Your task to perform on an android device: change timer sound Image 0: 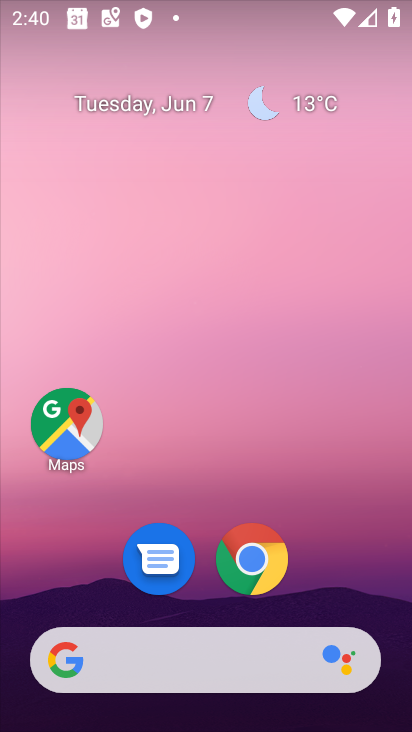
Step 0: drag from (343, 579) to (239, 0)
Your task to perform on an android device: change timer sound Image 1: 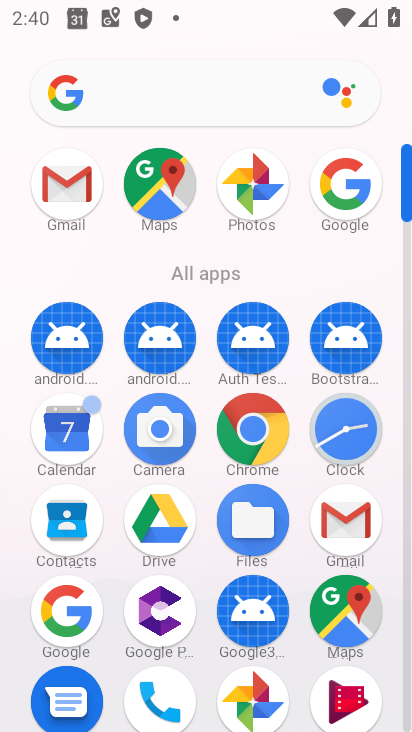
Step 1: drag from (302, 307) to (305, 99)
Your task to perform on an android device: change timer sound Image 2: 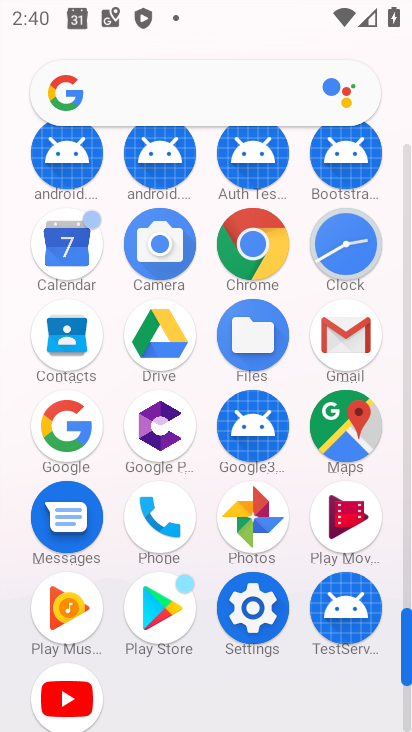
Step 2: click (348, 241)
Your task to perform on an android device: change timer sound Image 3: 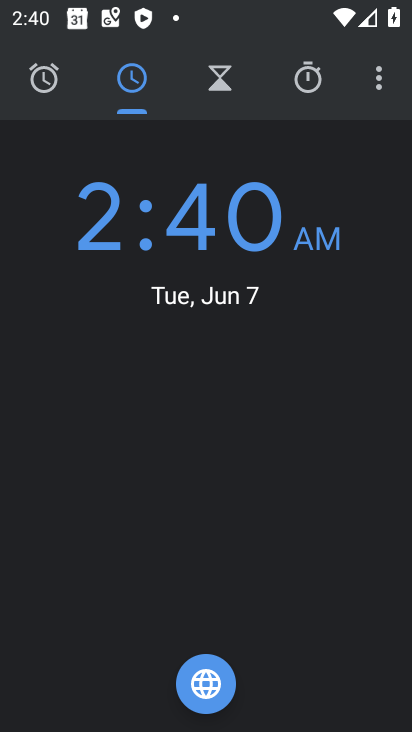
Step 3: click (377, 78)
Your task to perform on an android device: change timer sound Image 4: 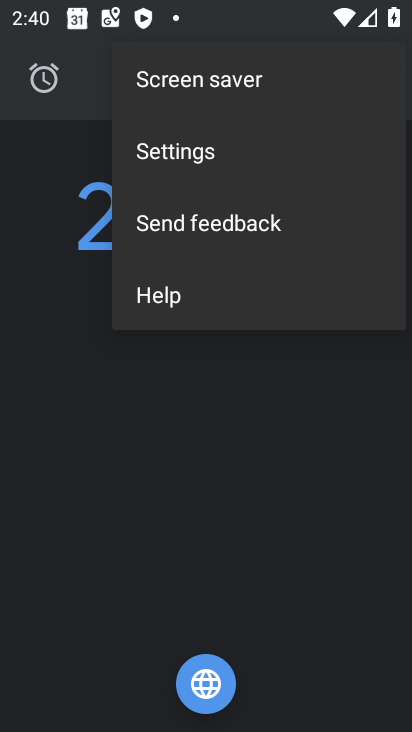
Step 4: click (164, 161)
Your task to perform on an android device: change timer sound Image 5: 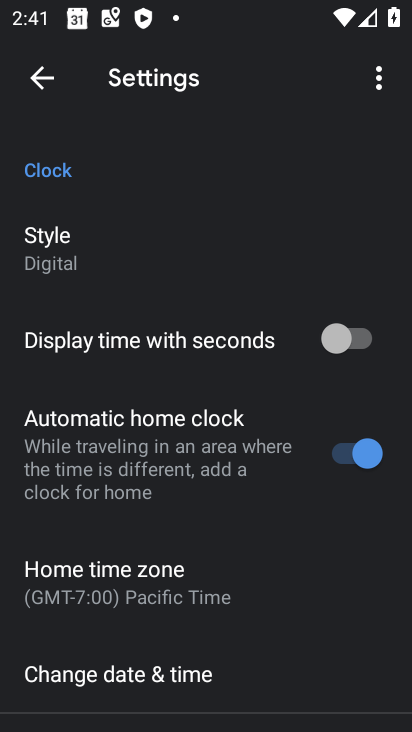
Step 5: drag from (210, 372) to (219, 157)
Your task to perform on an android device: change timer sound Image 6: 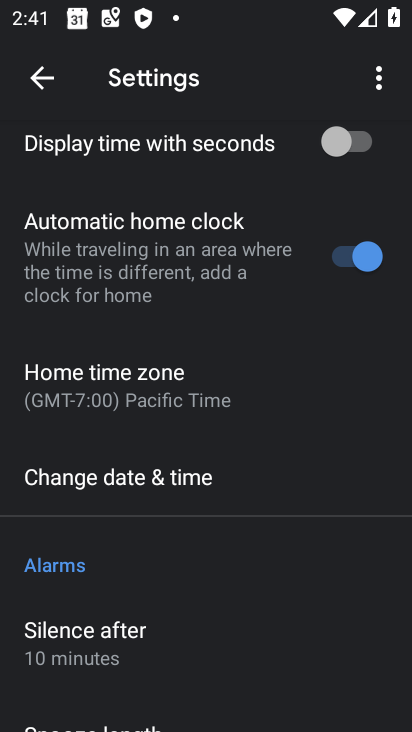
Step 6: drag from (140, 432) to (229, 264)
Your task to perform on an android device: change timer sound Image 7: 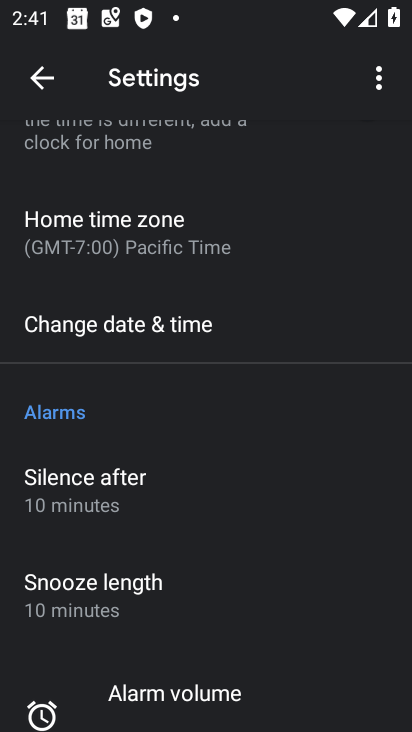
Step 7: drag from (109, 530) to (248, 342)
Your task to perform on an android device: change timer sound Image 8: 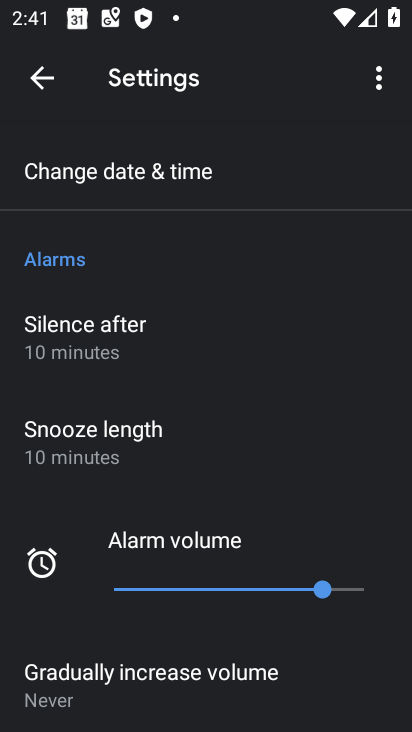
Step 8: drag from (79, 618) to (192, 372)
Your task to perform on an android device: change timer sound Image 9: 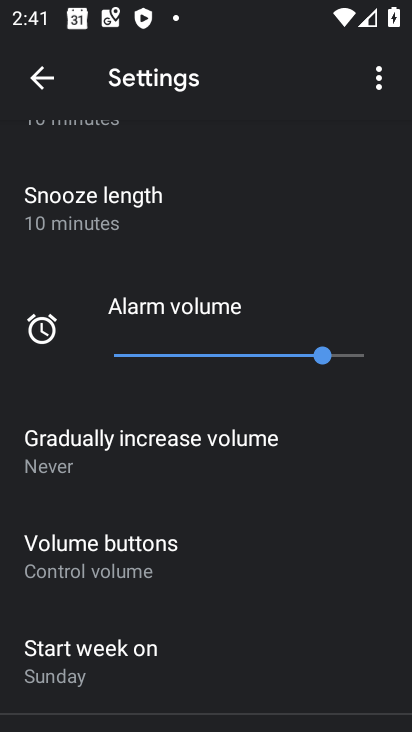
Step 9: drag from (87, 600) to (212, 418)
Your task to perform on an android device: change timer sound Image 10: 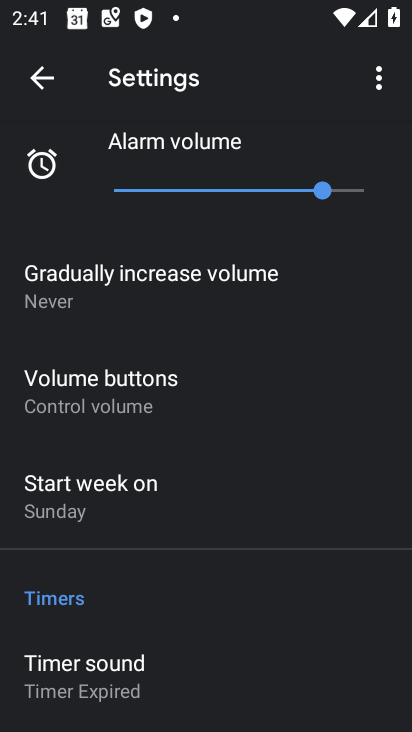
Step 10: click (114, 674)
Your task to perform on an android device: change timer sound Image 11: 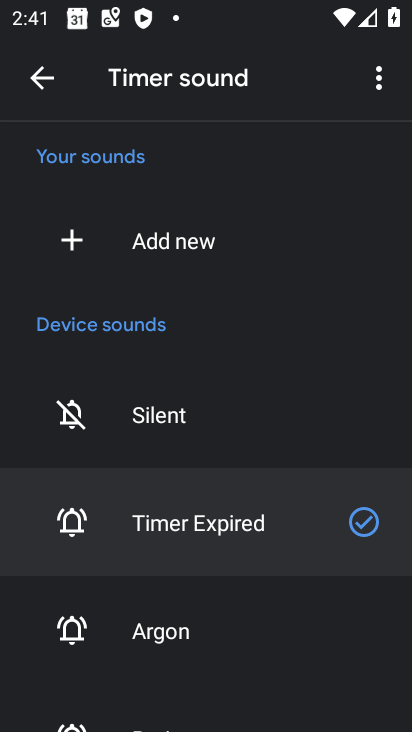
Step 11: drag from (166, 638) to (256, 474)
Your task to perform on an android device: change timer sound Image 12: 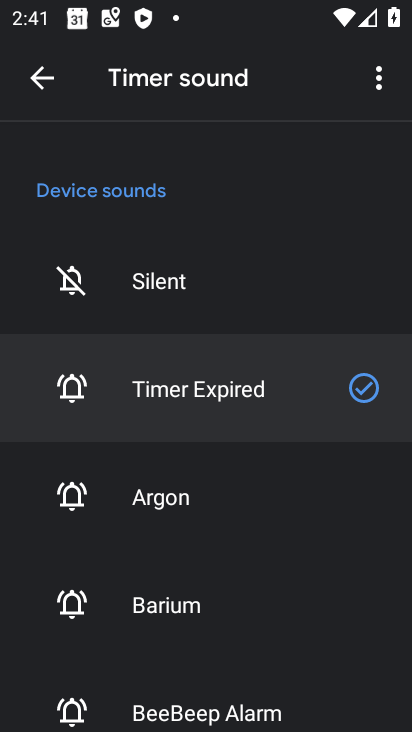
Step 12: drag from (195, 597) to (250, 469)
Your task to perform on an android device: change timer sound Image 13: 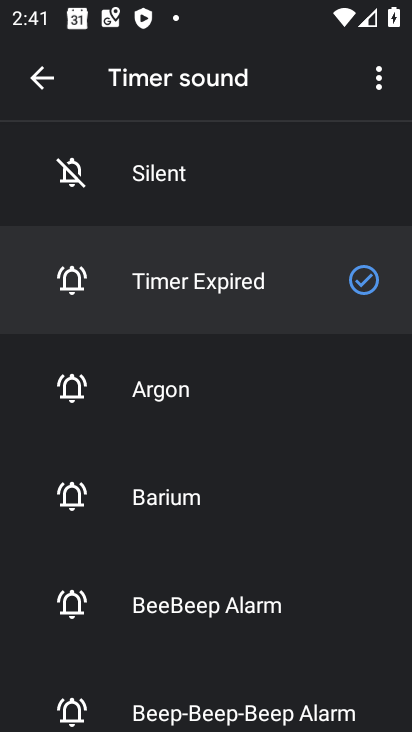
Step 13: drag from (199, 586) to (288, 450)
Your task to perform on an android device: change timer sound Image 14: 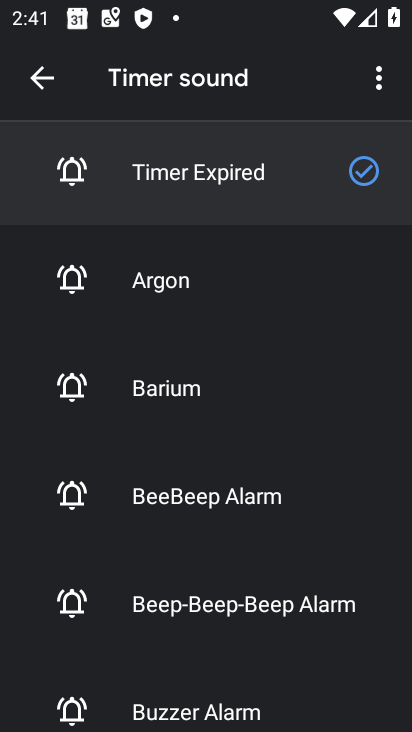
Step 14: drag from (190, 646) to (278, 445)
Your task to perform on an android device: change timer sound Image 15: 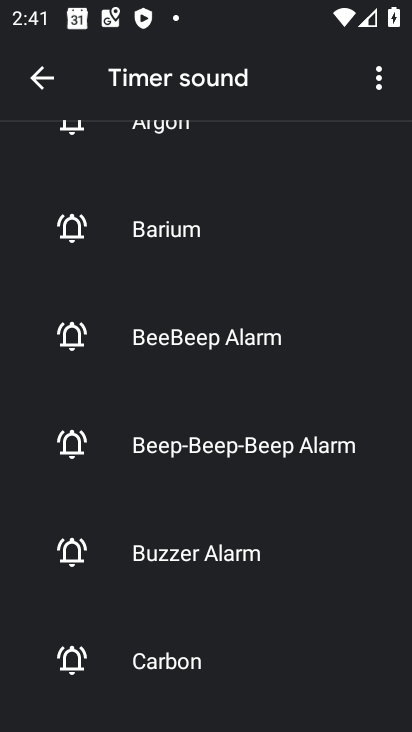
Step 15: drag from (195, 632) to (295, 441)
Your task to perform on an android device: change timer sound Image 16: 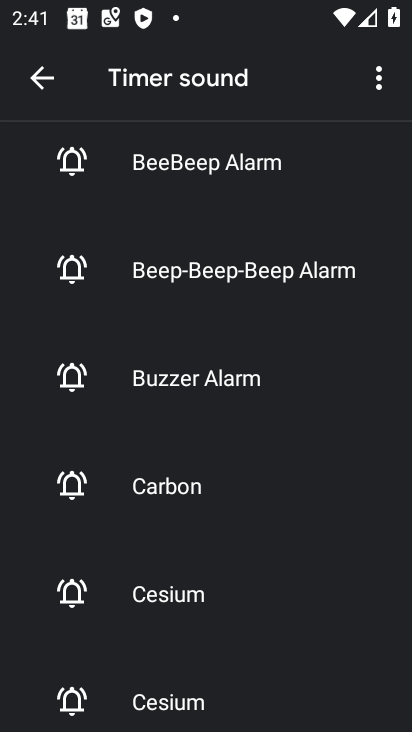
Step 16: click (203, 590)
Your task to perform on an android device: change timer sound Image 17: 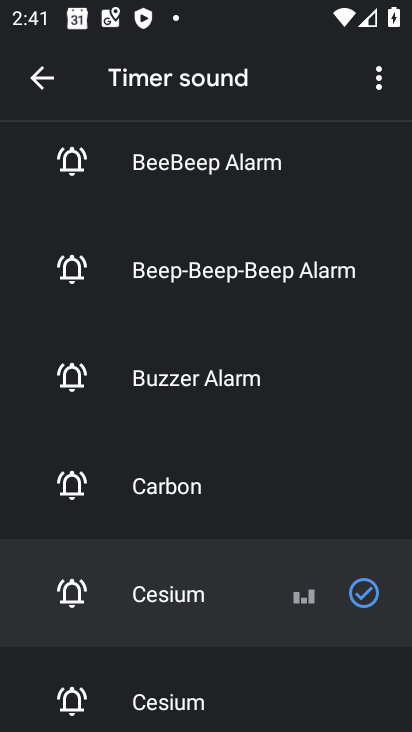
Step 17: task complete